Your task to perform on an android device: toggle javascript in the chrome app Image 0: 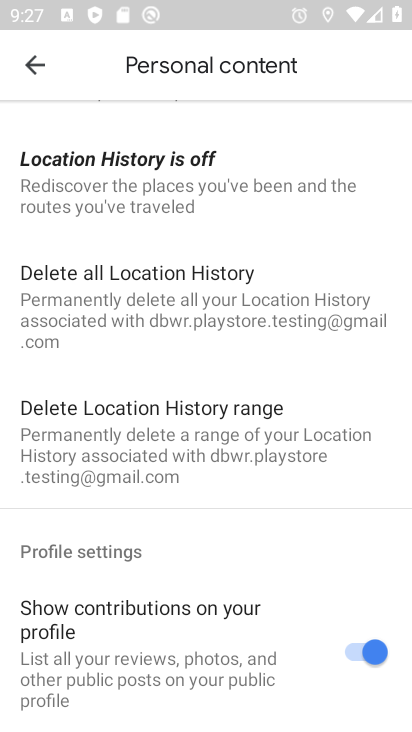
Step 0: press home button
Your task to perform on an android device: toggle javascript in the chrome app Image 1: 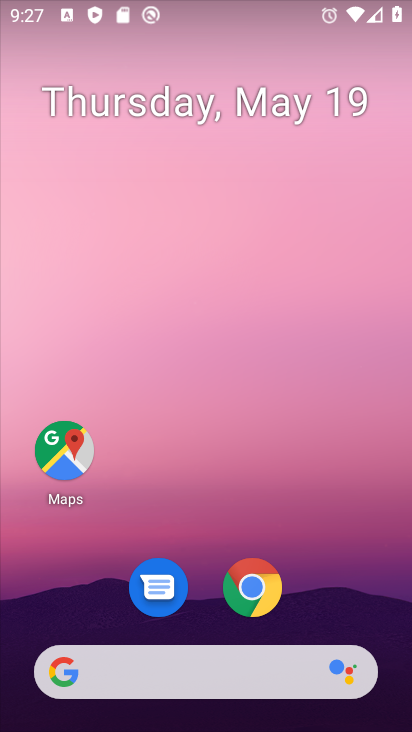
Step 1: drag from (387, 499) to (385, 230)
Your task to perform on an android device: toggle javascript in the chrome app Image 2: 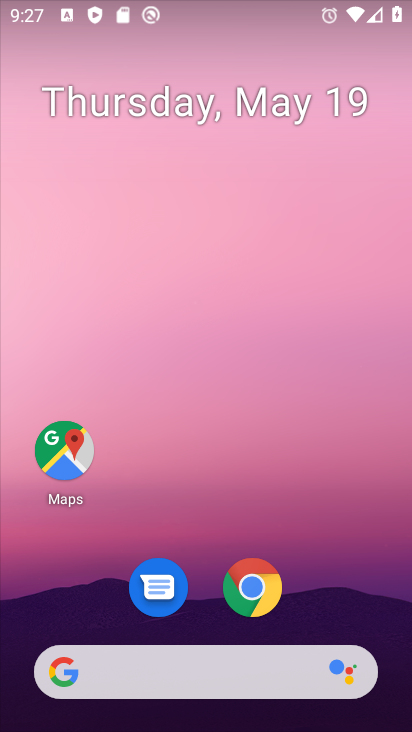
Step 2: drag from (364, 463) to (300, 4)
Your task to perform on an android device: toggle javascript in the chrome app Image 3: 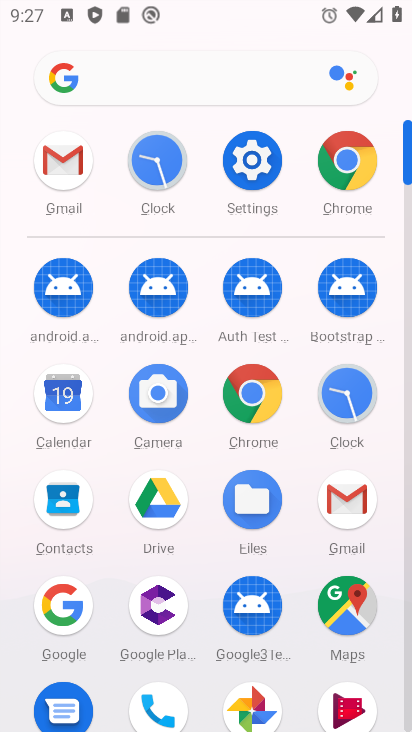
Step 3: click (259, 167)
Your task to perform on an android device: toggle javascript in the chrome app Image 4: 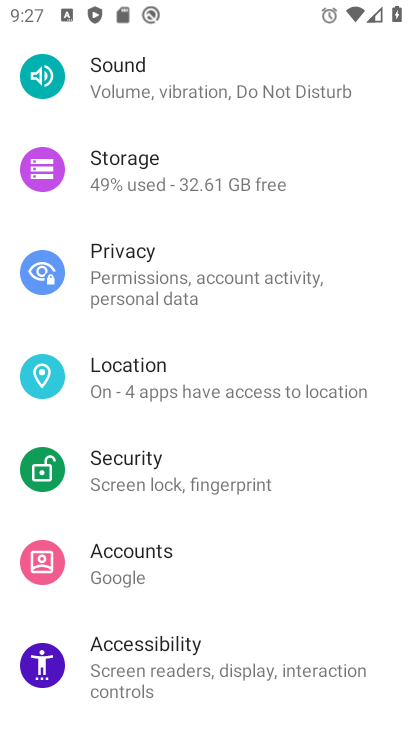
Step 4: press back button
Your task to perform on an android device: toggle javascript in the chrome app Image 5: 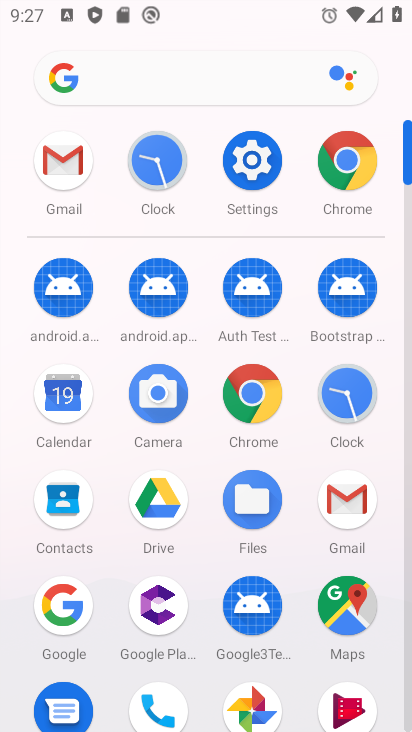
Step 5: click (342, 175)
Your task to perform on an android device: toggle javascript in the chrome app Image 6: 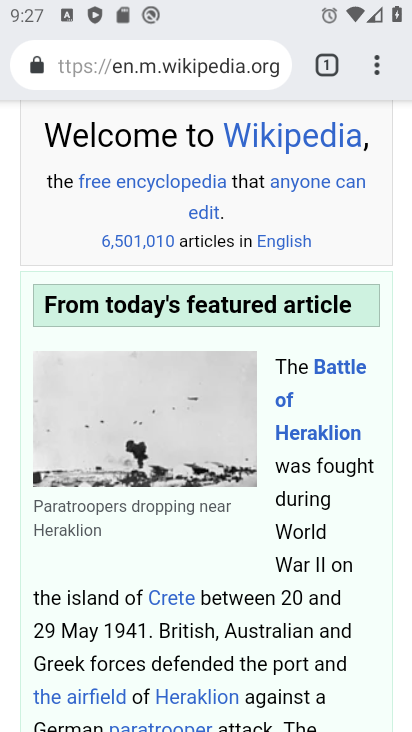
Step 6: drag from (375, 66) to (168, 624)
Your task to perform on an android device: toggle javascript in the chrome app Image 7: 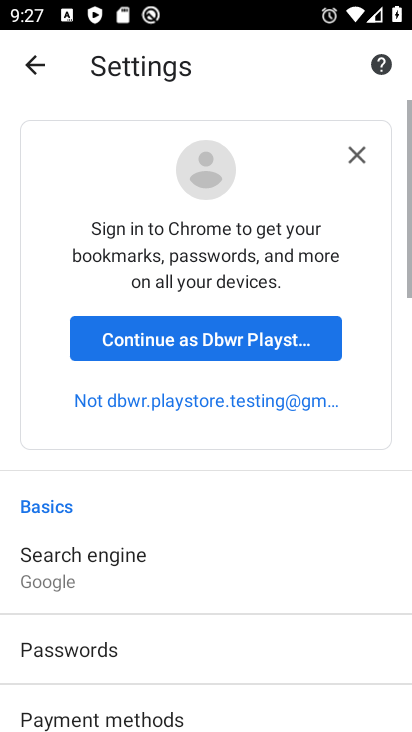
Step 7: drag from (168, 624) to (202, 85)
Your task to perform on an android device: toggle javascript in the chrome app Image 8: 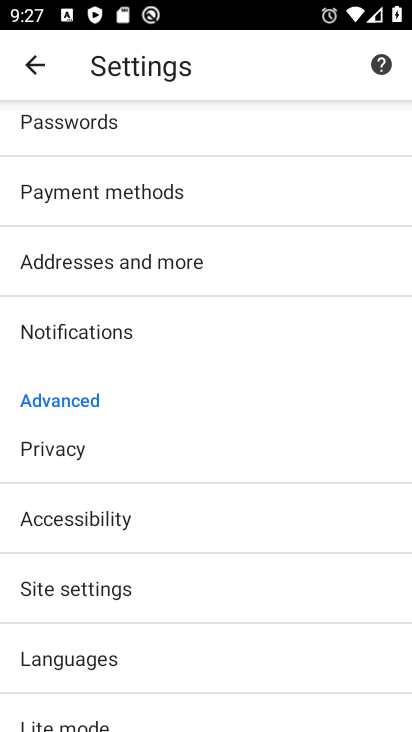
Step 8: click (70, 588)
Your task to perform on an android device: toggle javascript in the chrome app Image 9: 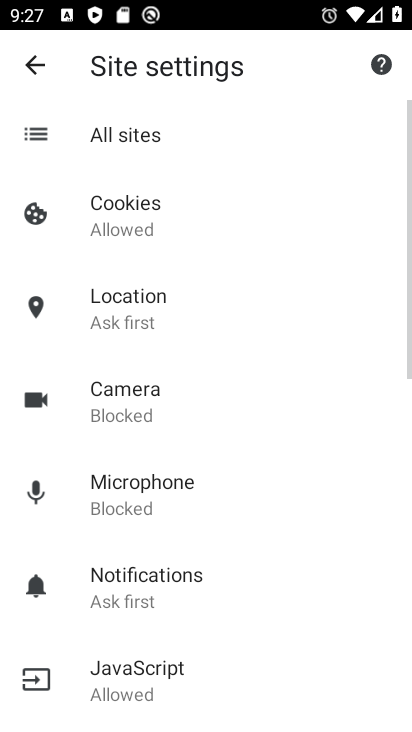
Step 9: drag from (143, 607) to (170, 255)
Your task to perform on an android device: toggle javascript in the chrome app Image 10: 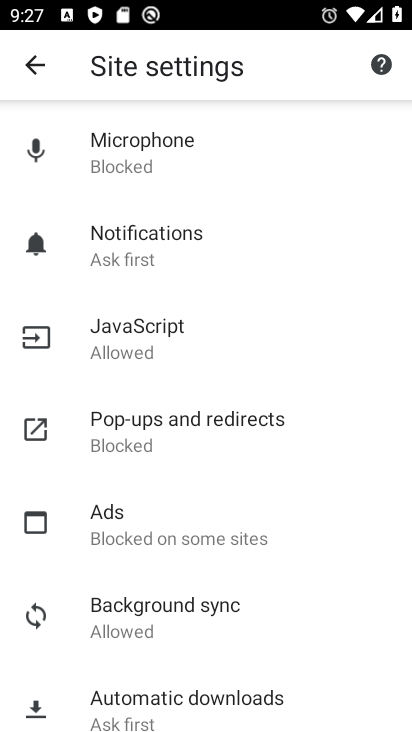
Step 10: click (146, 344)
Your task to perform on an android device: toggle javascript in the chrome app Image 11: 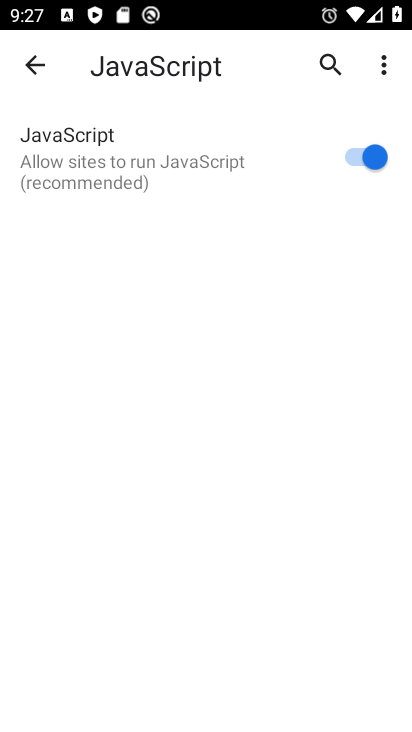
Step 11: click (362, 163)
Your task to perform on an android device: toggle javascript in the chrome app Image 12: 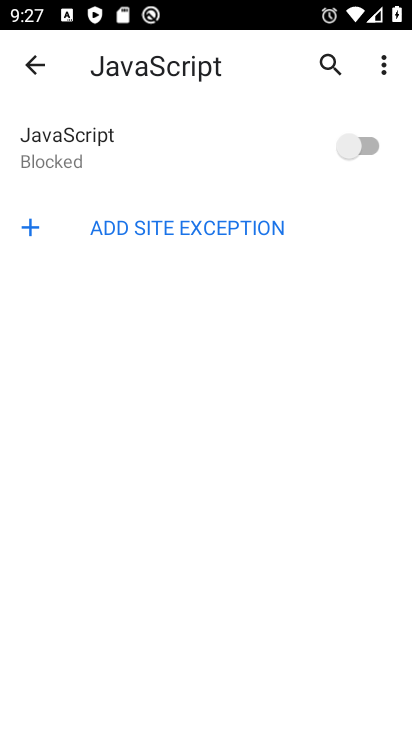
Step 12: task complete